Your task to perform on an android device: Check the weather Image 0: 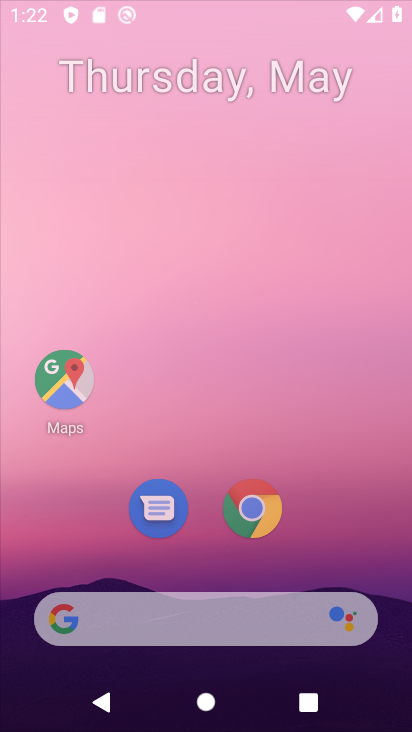
Step 0: click (205, 215)
Your task to perform on an android device: Check the weather Image 1: 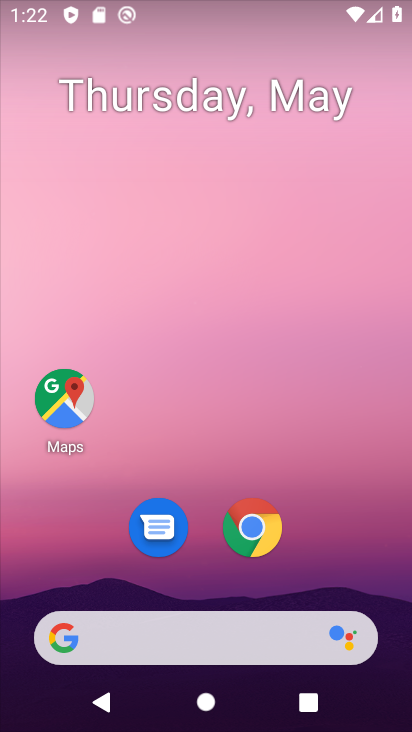
Step 1: drag from (200, 561) to (239, 105)
Your task to perform on an android device: Check the weather Image 2: 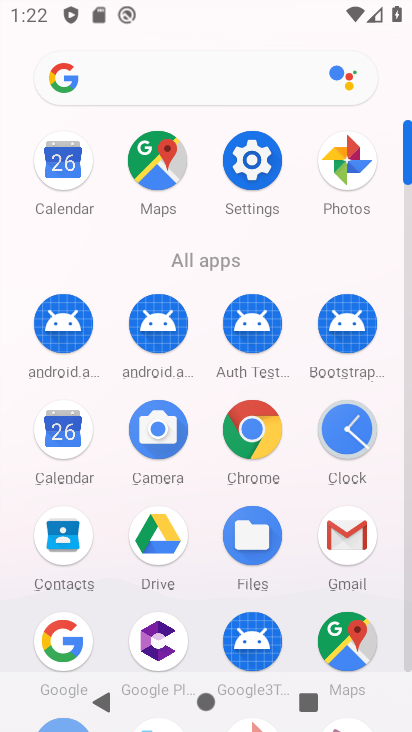
Step 2: click (116, 67)
Your task to perform on an android device: Check the weather Image 3: 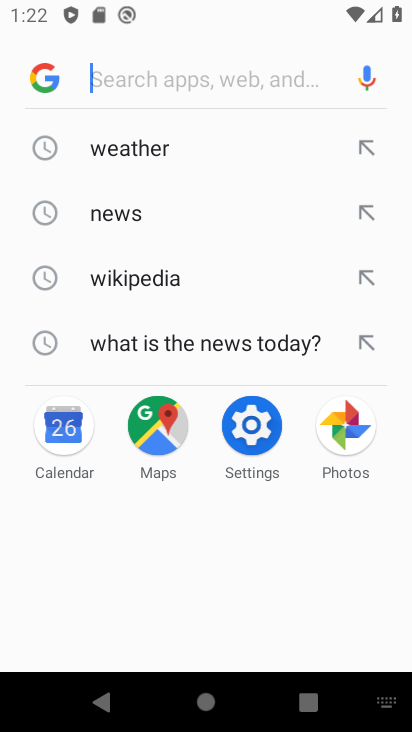
Step 3: click (145, 151)
Your task to perform on an android device: Check the weather Image 4: 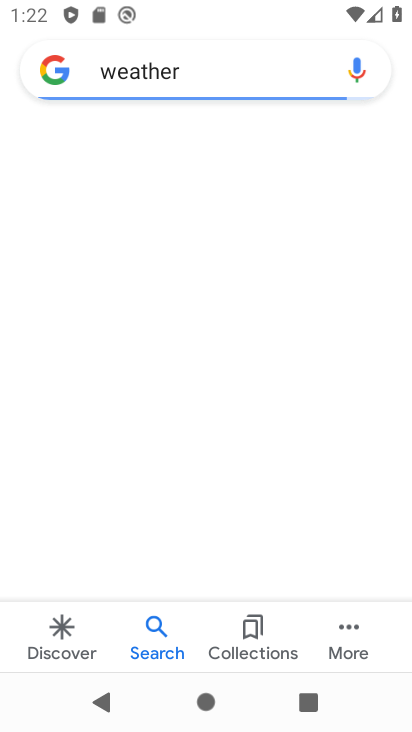
Step 4: task complete